Your task to perform on an android device: add a label to a message in the gmail app Image 0: 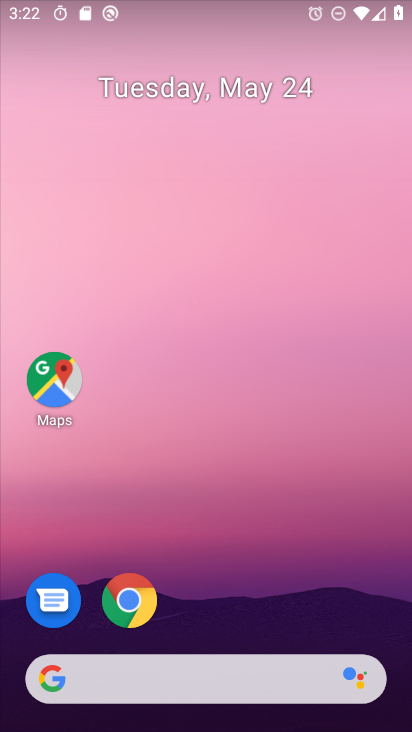
Step 0: drag from (298, 574) to (196, 126)
Your task to perform on an android device: add a label to a message in the gmail app Image 1: 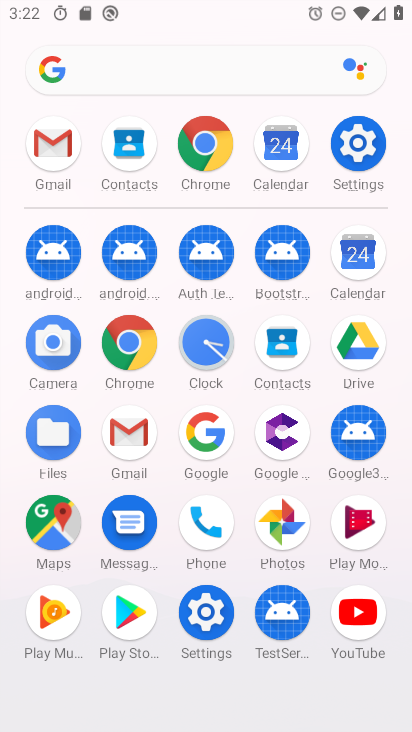
Step 1: click (65, 155)
Your task to perform on an android device: add a label to a message in the gmail app Image 2: 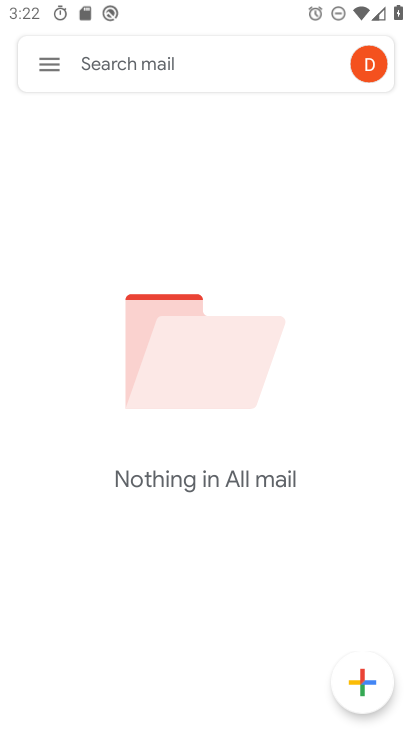
Step 2: click (50, 69)
Your task to perform on an android device: add a label to a message in the gmail app Image 3: 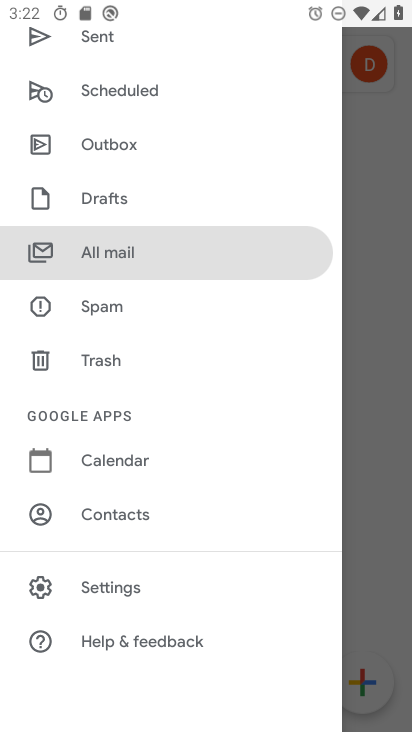
Step 3: click (93, 248)
Your task to perform on an android device: add a label to a message in the gmail app Image 4: 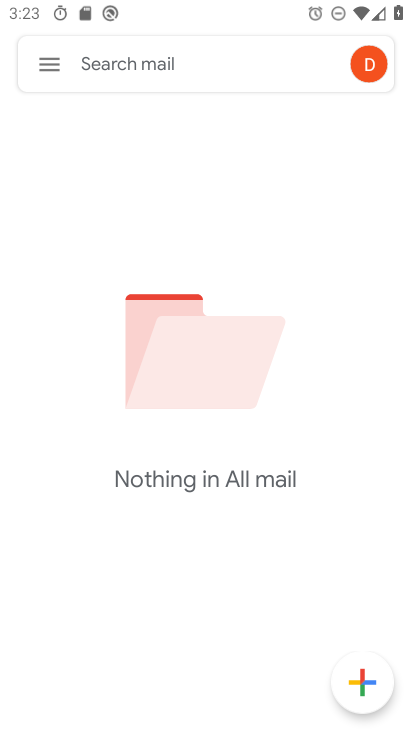
Step 4: task complete